Your task to perform on an android device: open a bookmark in the chrome app Image 0: 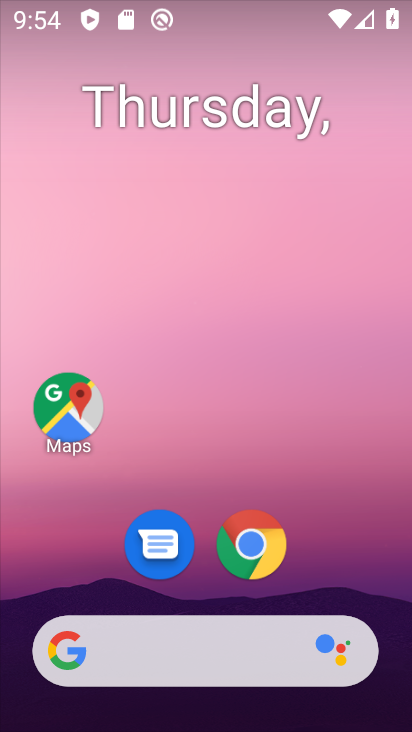
Step 0: click (248, 547)
Your task to perform on an android device: open a bookmark in the chrome app Image 1: 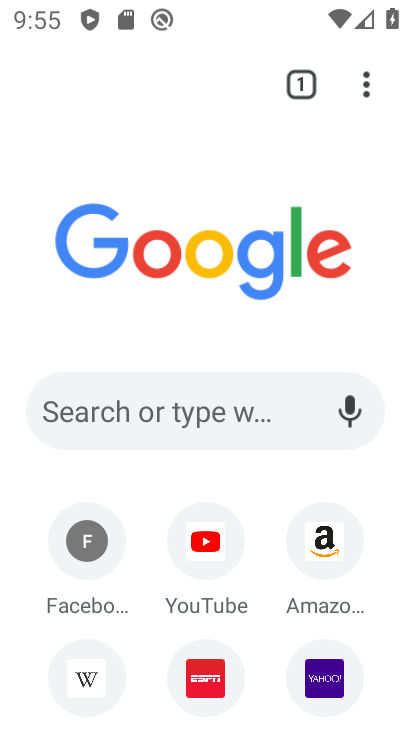
Step 1: click (358, 83)
Your task to perform on an android device: open a bookmark in the chrome app Image 2: 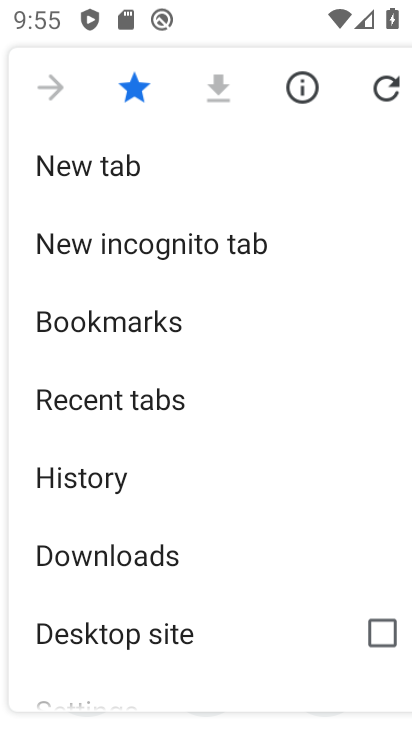
Step 2: click (181, 316)
Your task to perform on an android device: open a bookmark in the chrome app Image 3: 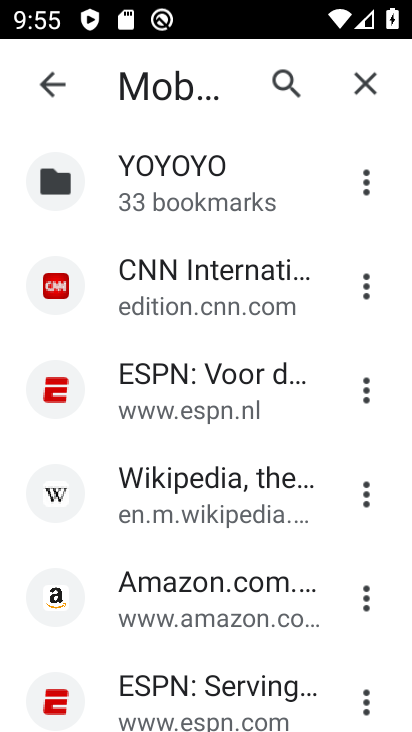
Step 3: click (199, 389)
Your task to perform on an android device: open a bookmark in the chrome app Image 4: 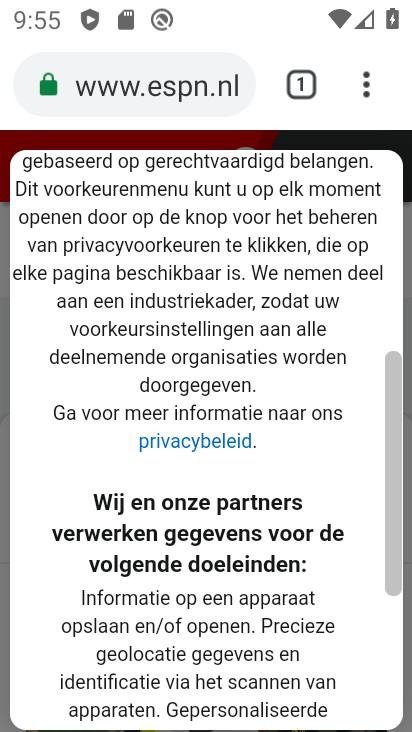
Step 4: task complete